Your task to perform on an android device: Go to Amazon Image 0: 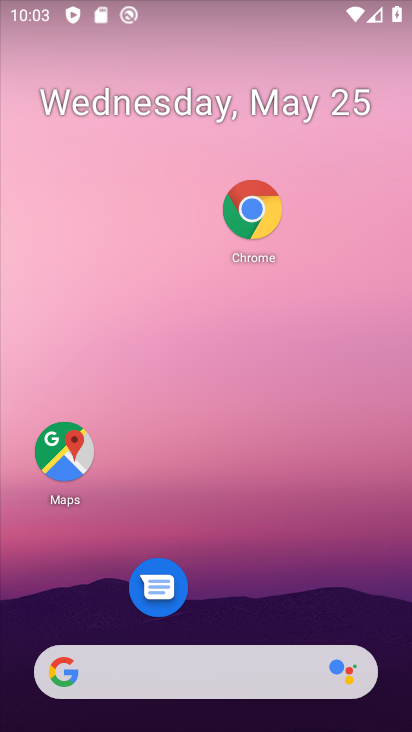
Step 0: click (245, 225)
Your task to perform on an android device: Go to Amazon Image 1: 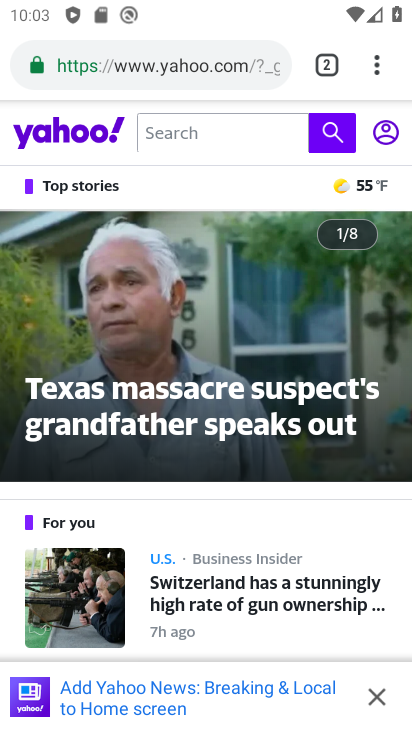
Step 1: click (189, 62)
Your task to perform on an android device: Go to Amazon Image 2: 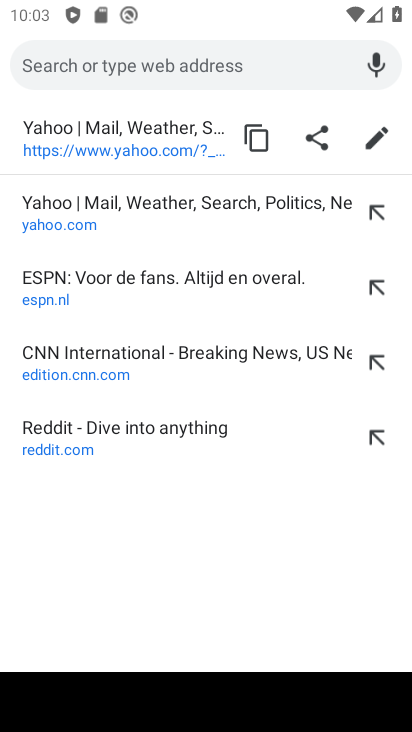
Step 2: type "Amazon"
Your task to perform on an android device: Go to Amazon Image 3: 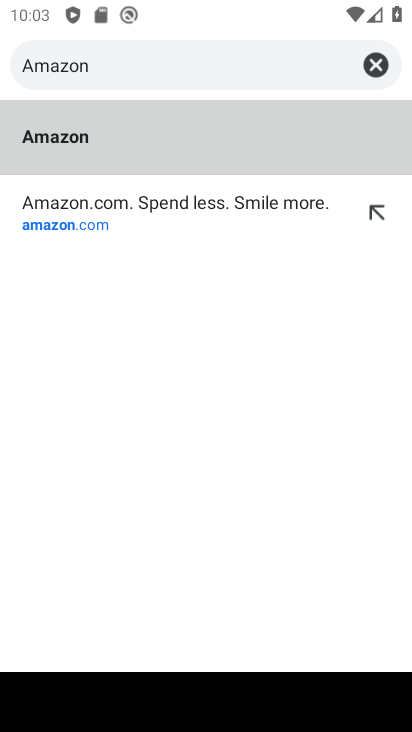
Step 3: click (84, 150)
Your task to perform on an android device: Go to Amazon Image 4: 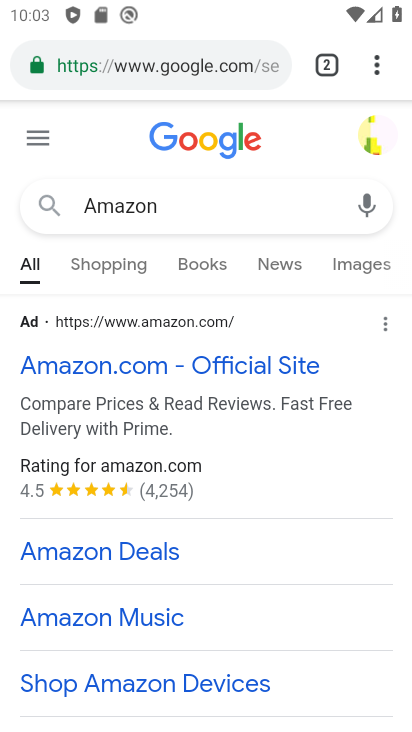
Step 4: task complete